Your task to perform on an android device: change the clock style Image 0: 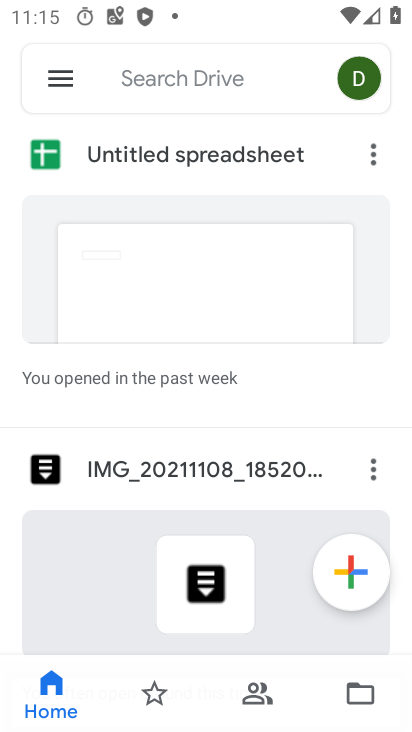
Step 0: press home button
Your task to perform on an android device: change the clock style Image 1: 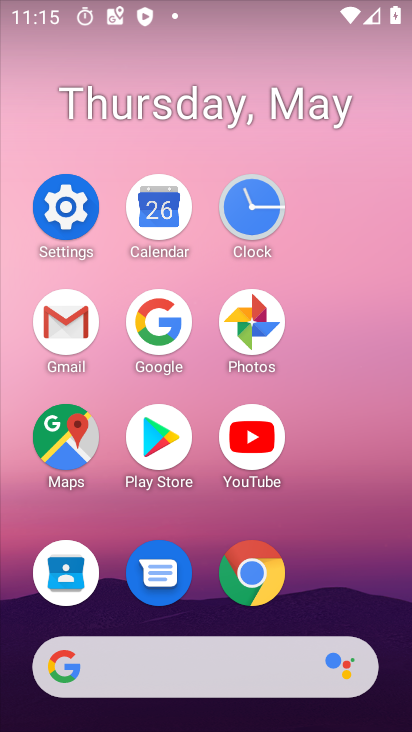
Step 1: click (256, 206)
Your task to perform on an android device: change the clock style Image 2: 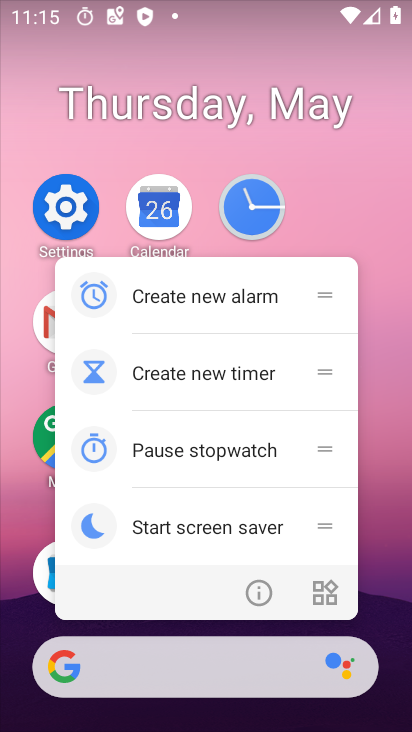
Step 2: click (256, 205)
Your task to perform on an android device: change the clock style Image 3: 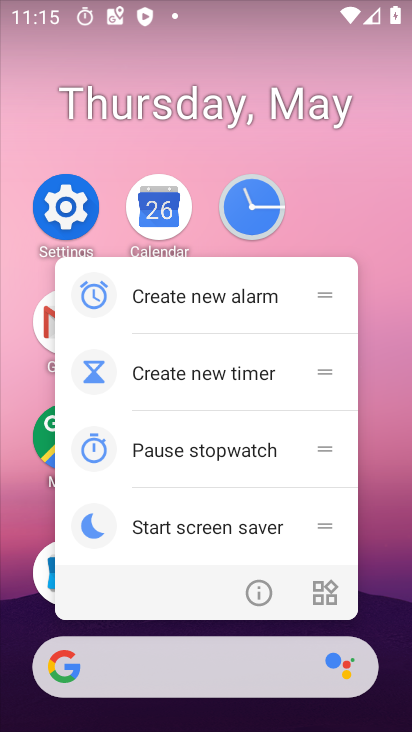
Step 3: click (256, 204)
Your task to perform on an android device: change the clock style Image 4: 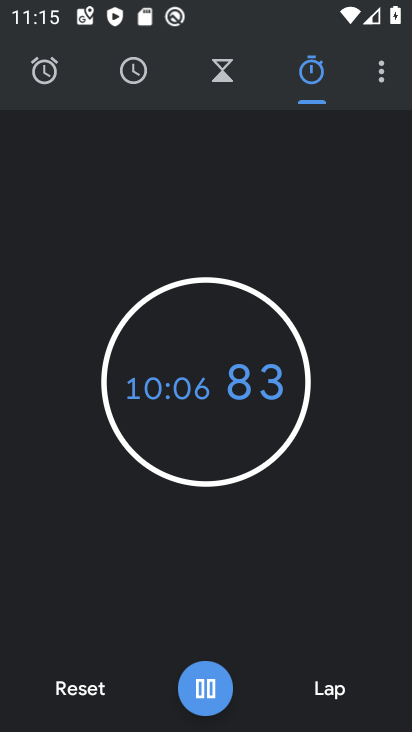
Step 4: click (378, 79)
Your task to perform on an android device: change the clock style Image 5: 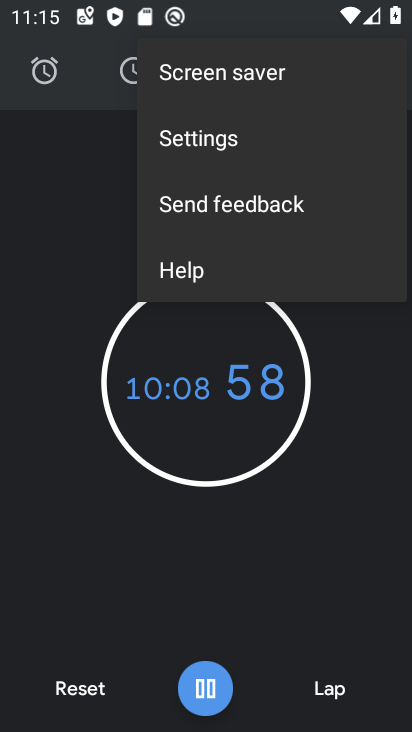
Step 5: click (247, 125)
Your task to perform on an android device: change the clock style Image 6: 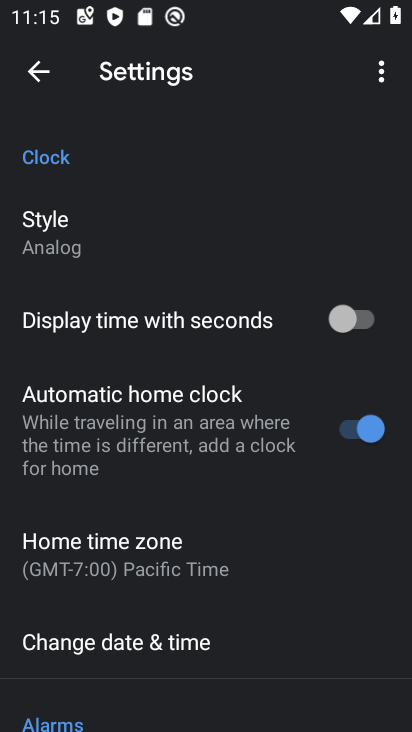
Step 6: click (132, 242)
Your task to perform on an android device: change the clock style Image 7: 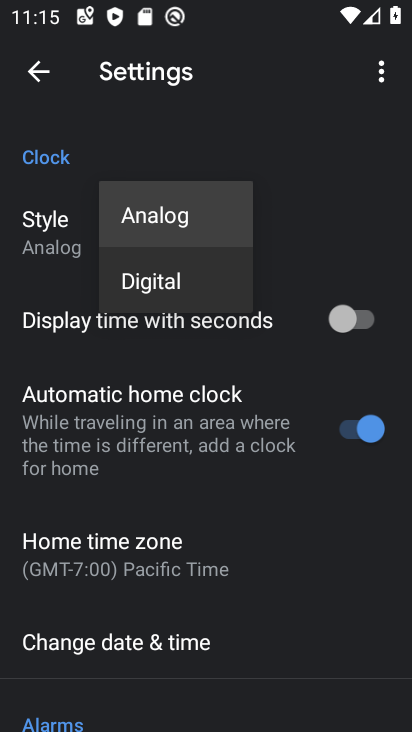
Step 7: click (156, 286)
Your task to perform on an android device: change the clock style Image 8: 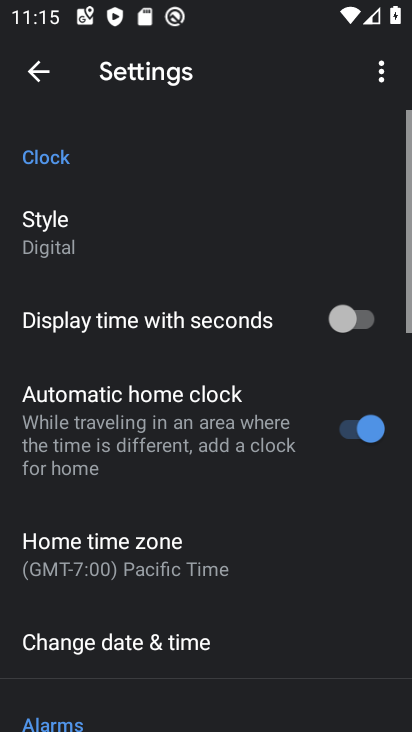
Step 8: task complete